Your task to perform on an android device: When is my next appointment? Image 0: 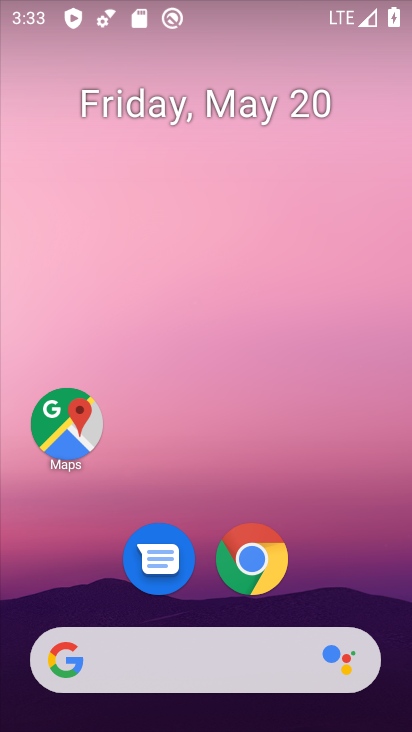
Step 0: drag from (218, 477) to (222, 65)
Your task to perform on an android device: When is my next appointment? Image 1: 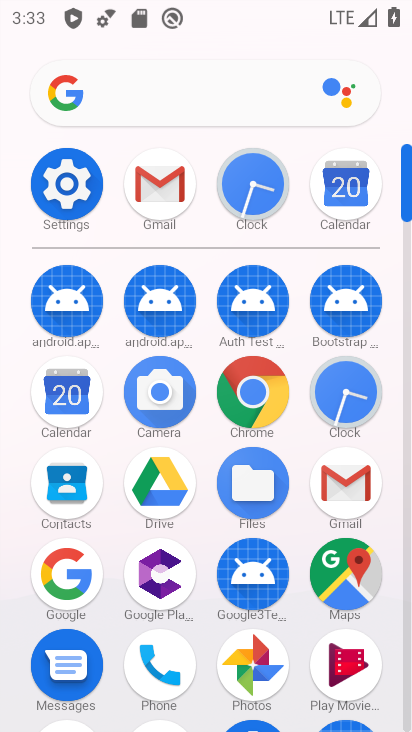
Step 1: click (346, 188)
Your task to perform on an android device: When is my next appointment? Image 2: 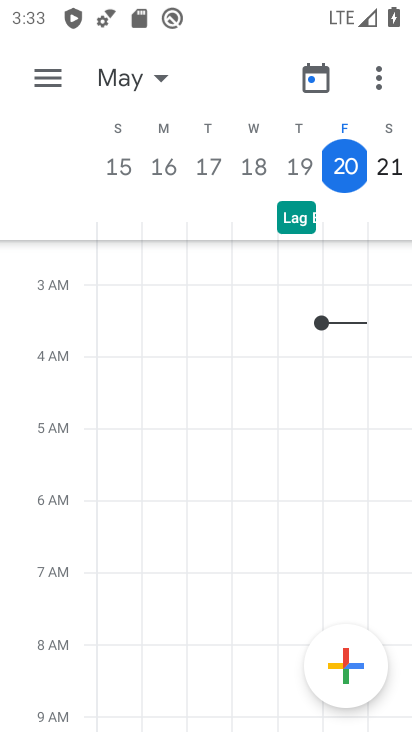
Step 2: click (346, 165)
Your task to perform on an android device: When is my next appointment? Image 3: 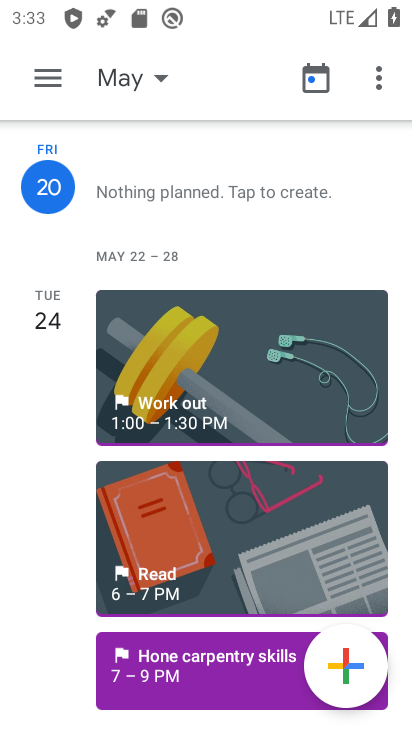
Step 3: task complete